Your task to perform on an android device: change the clock display to show seconds Image 0: 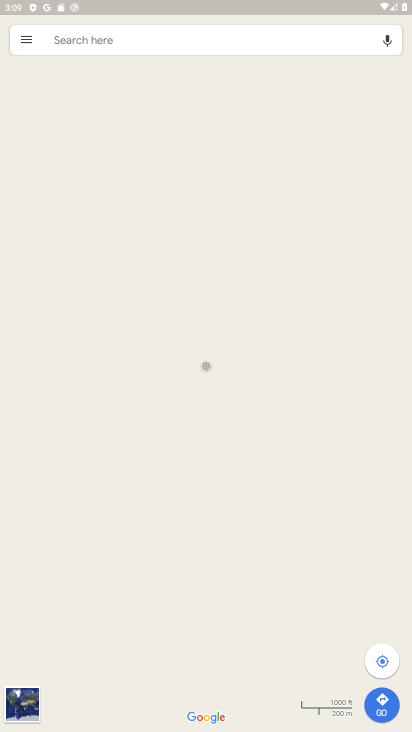
Step 0: press home button
Your task to perform on an android device: change the clock display to show seconds Image 1: 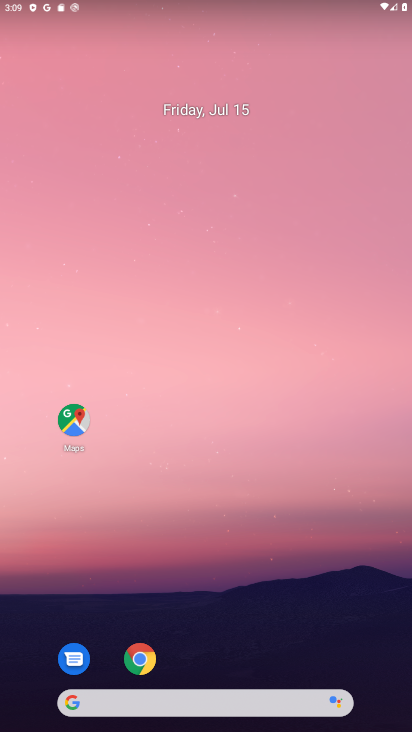
Step 1: drag from (196, 588) to (80, 129)
Your task to perform on an android device: change the clock display to show seconds Image 2: 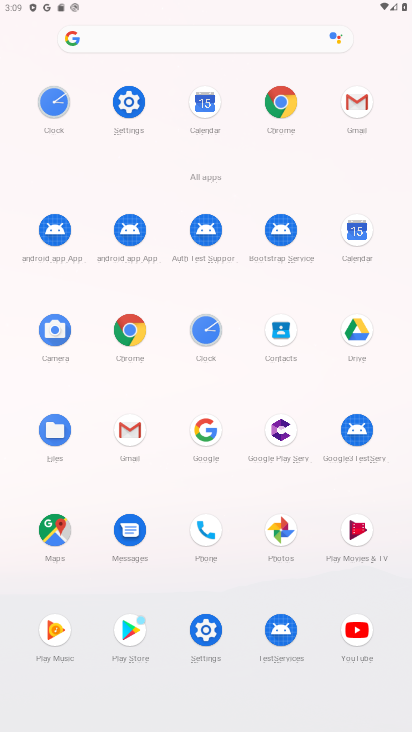
Step 2: click (205, 330)
Your task to perform on an android device: change the clock display to show seconds Image 3: 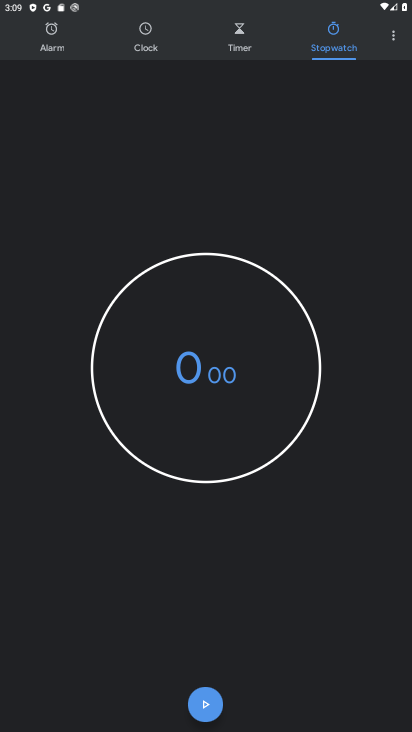
Step 3: click (389, 37)
Your task to perform on an android device: change the clock display to show seconds Image 4: 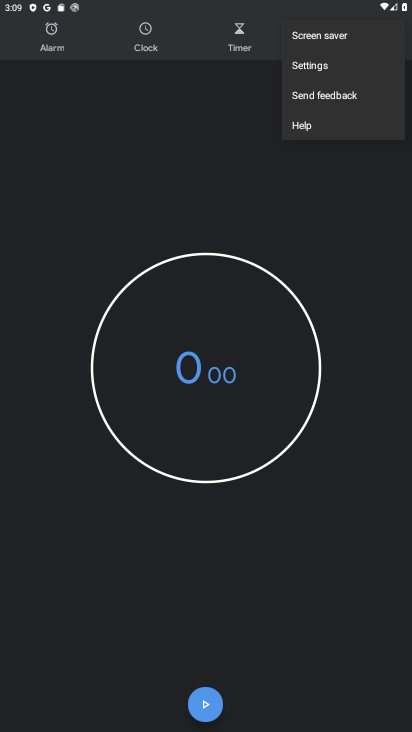
Step 4: click (320, 69)
Your task to perform on an android device: change the clock display to show seconds Image 5: 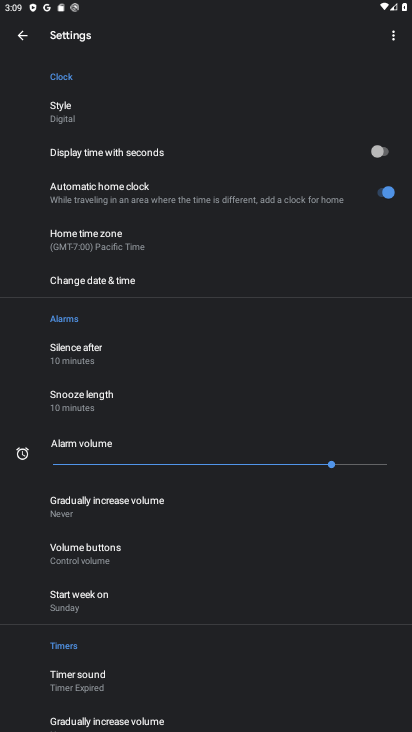
Step 5: click (382, 150)
Your task to perform on an android device: change the clock display to show seconds Image 6: 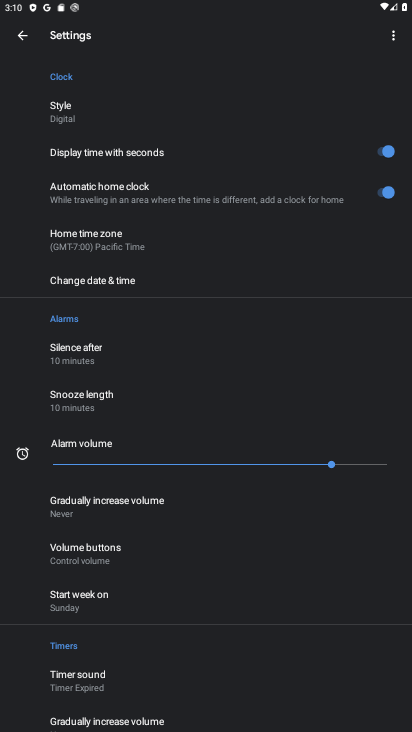
Step 6: task complete